Your task to perform on an android device: open app "Skype" (install if not already installed) and enter user name: "rumor@gmail.com" and password: "kinsman" Image 0: 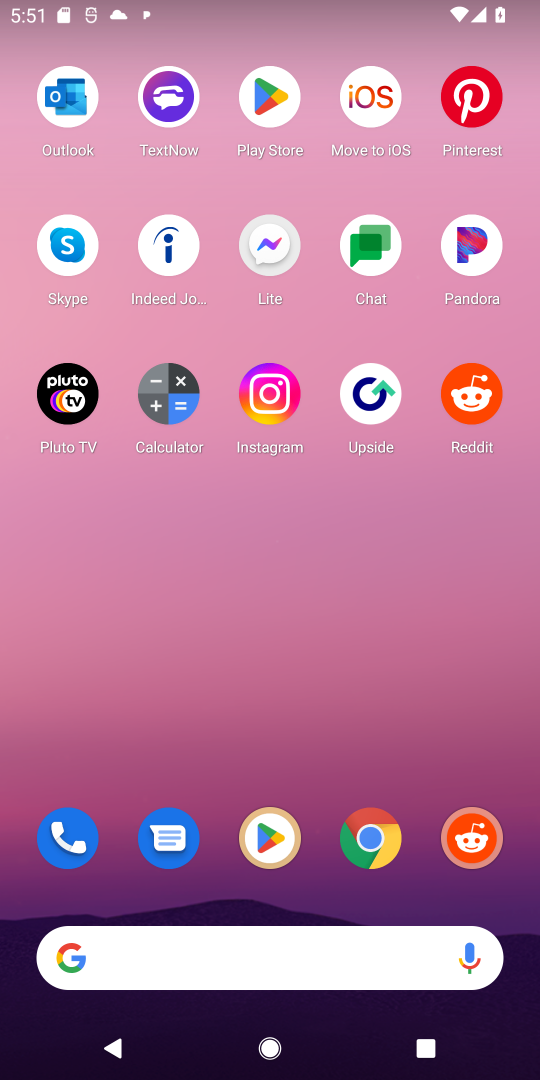
Step 0: click (264, 834)
Your task to perform on an android device: open app "Skype" (install if not already installed) and enter user name: "rumor@gmail.com" and password: "kinsman" Image 1: 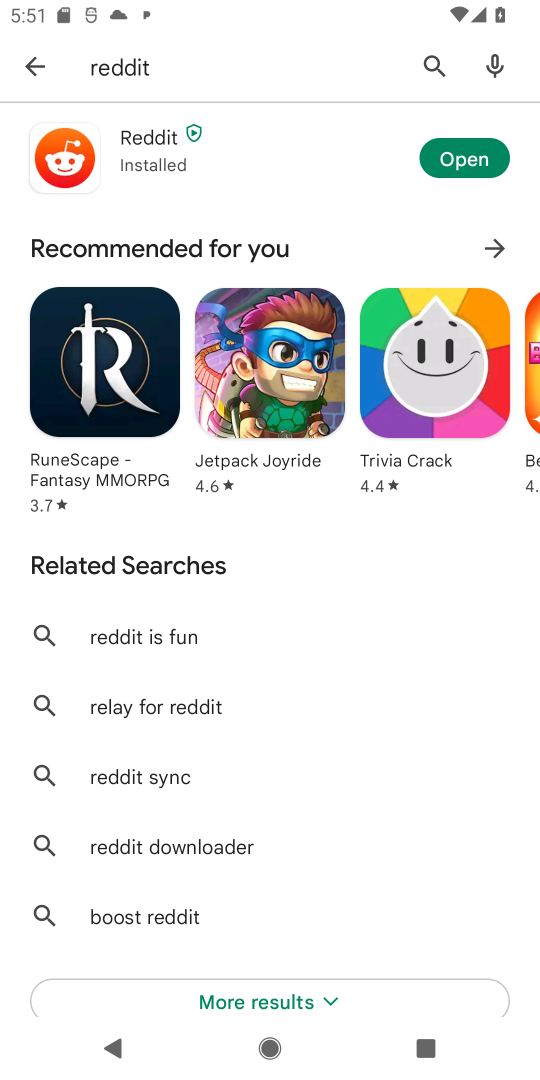
Step 1: click (438, 58)
Your task to perform on an android device: open app "Skype" (install if not already installed) and enter user name: "rumor@gmail.com" and password: "kinsman" Image 2: 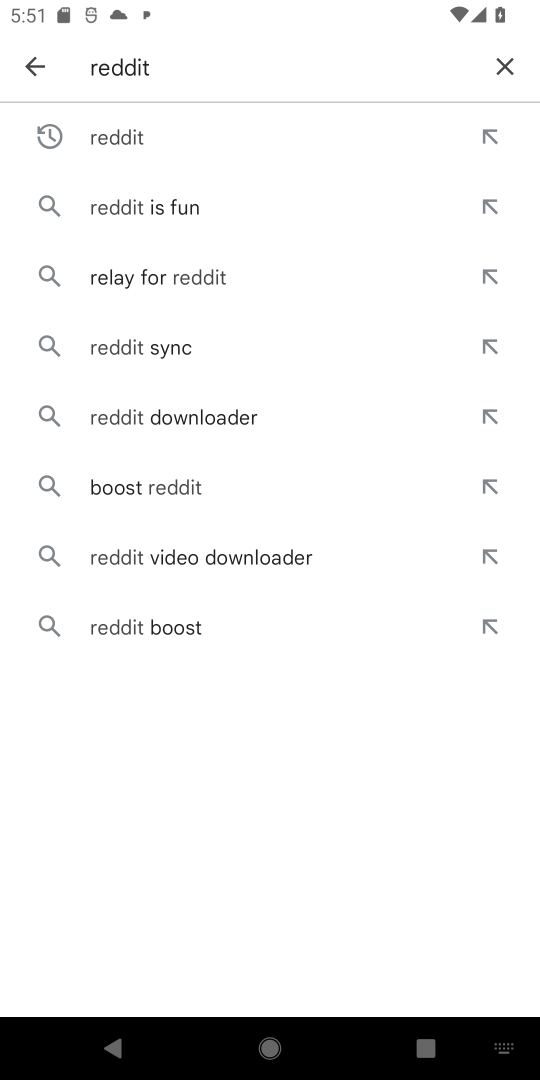
Step 2: click (502, 63)
Your task to perform on an android device: open app "Skype" (install if not already installed) and enter user name: "rumor@gmail.com" and password: "kinsman" Image 3: 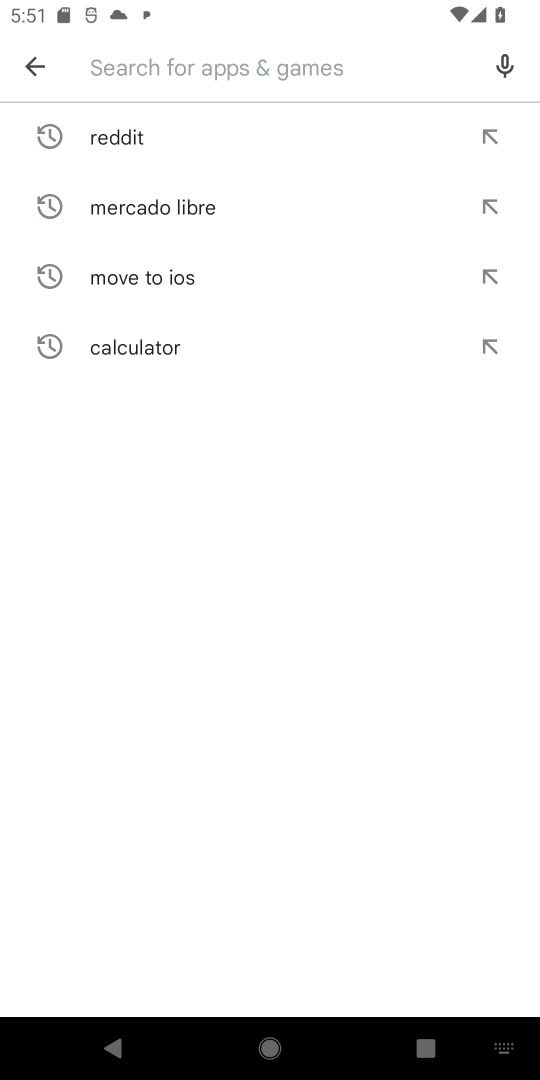
Step 3: type "Skype"
Your task to perform on an android device: open app "Skype" (install if not already installed) and enter user name: "rumor@gmail.com" and password: "kinsman" Image 4: 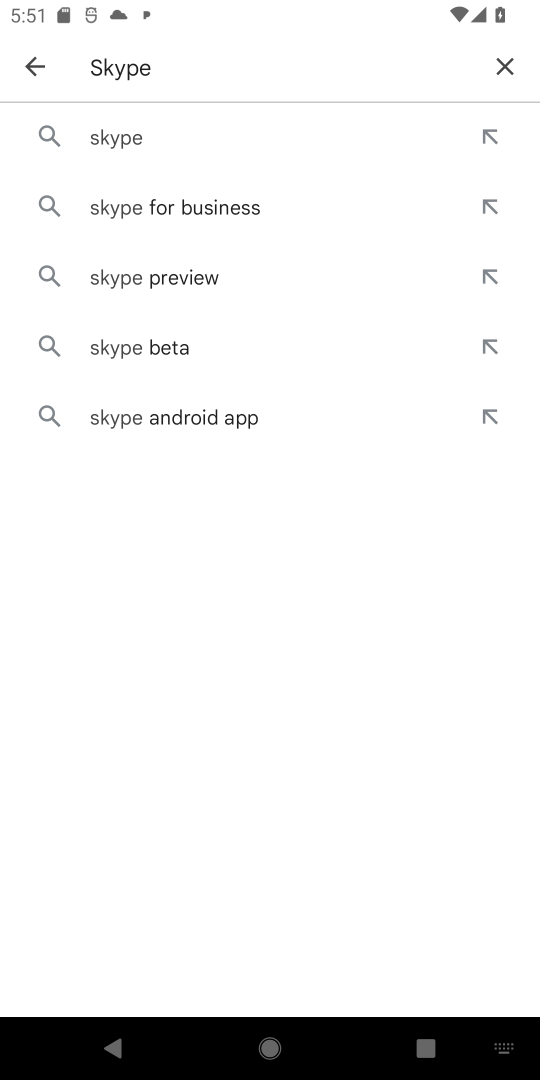
Step 4: click (132, 130)
Your task to perform on an android device: open app "Skype" (install if not already installed) and enter user name: "rumor@gmail.com" and password: "kinsman" Image 5: 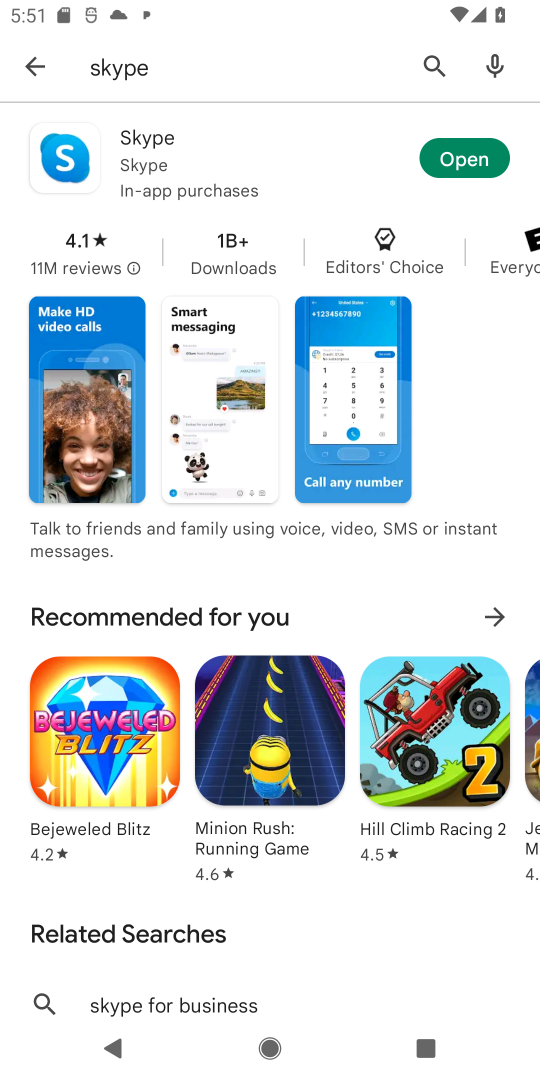
Step 5: click (472, 157)
Your task to perform on an android device: open app "Skype" (install if not already installed) and enter user name: "rumor@gmail.com" and password: "kinsman" Image 6: 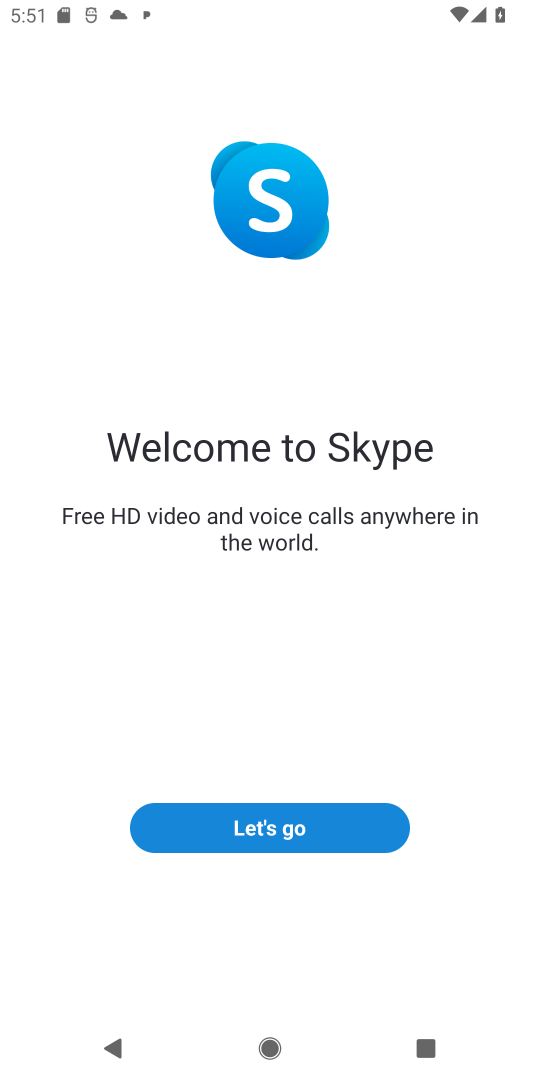
Step 6: click (279, 825)
Your task to perform on an android device: open app "Skype" (install if not already installed) and enter user name: "rumor@gmail.com" and password: "kinsman" Image 7: 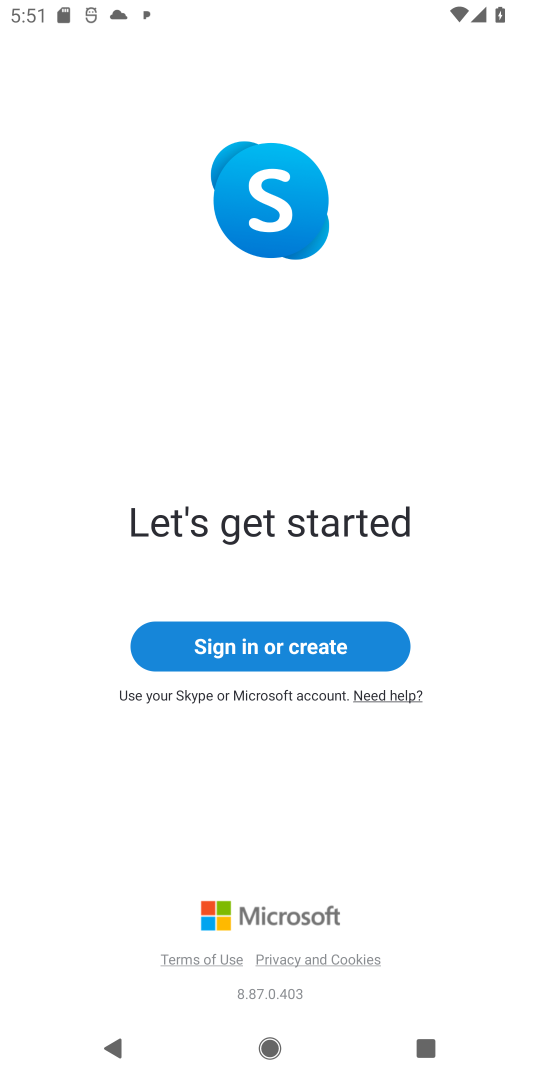
Step 7: click (293, 650)
Your task to perform on an android device: open app "Skype" (install if not already installed) and enter user name: "rumor@gmail.com" and password: "kinsman" Image 8: 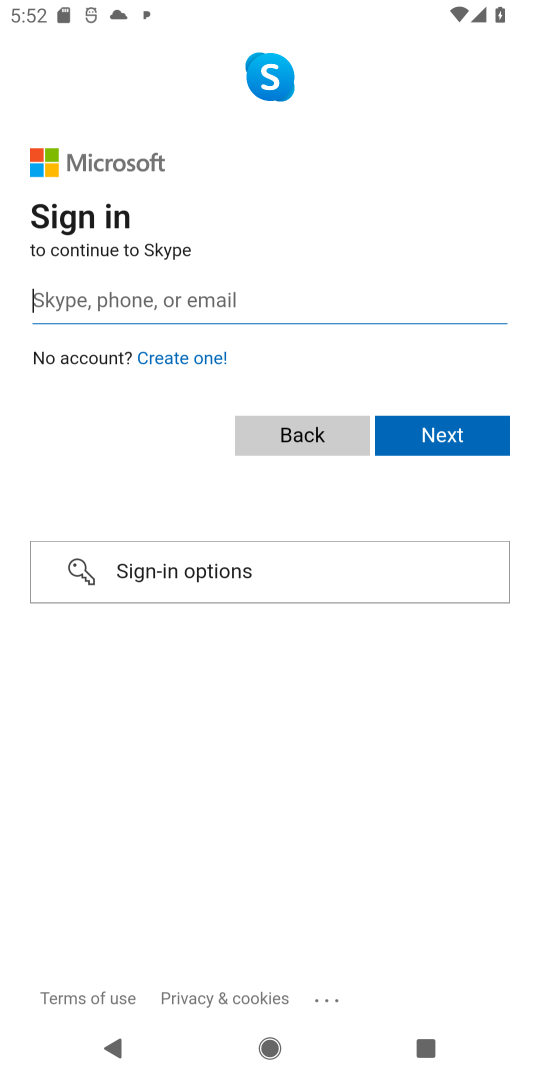
Step 8: type "rumor@gmail.com"
Your task to perform on an android device: open app "Skype" (install if not already installed) and enter user name: "rumor@gmail.com" and password: "kinsman" Image 9: 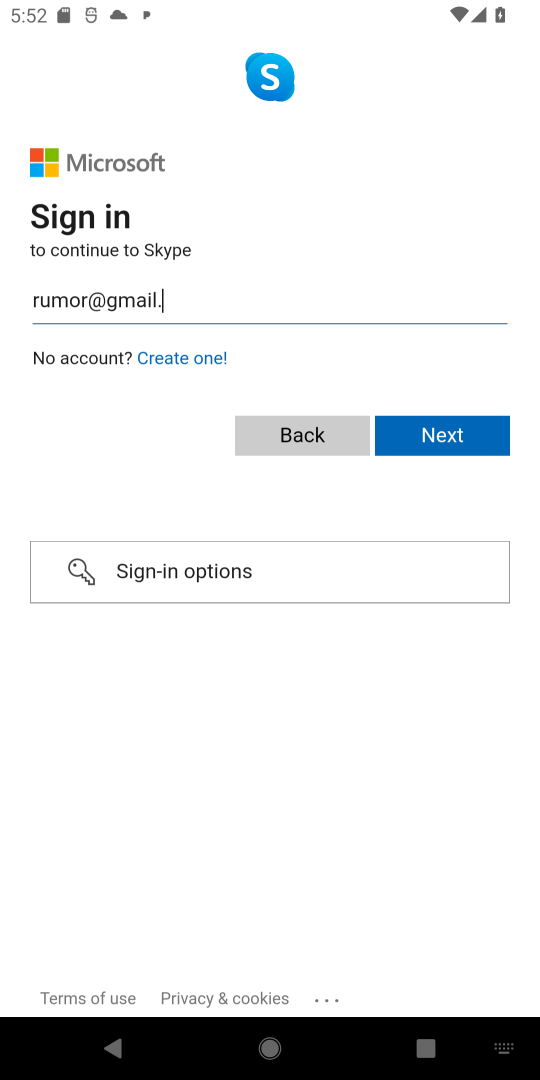
Step 9: type ""
Your task to perform on an android device: open app "Skype" (install if not already installed) and enter user name: "rumor@gmail.com" and password: "kinsman" Image 10: 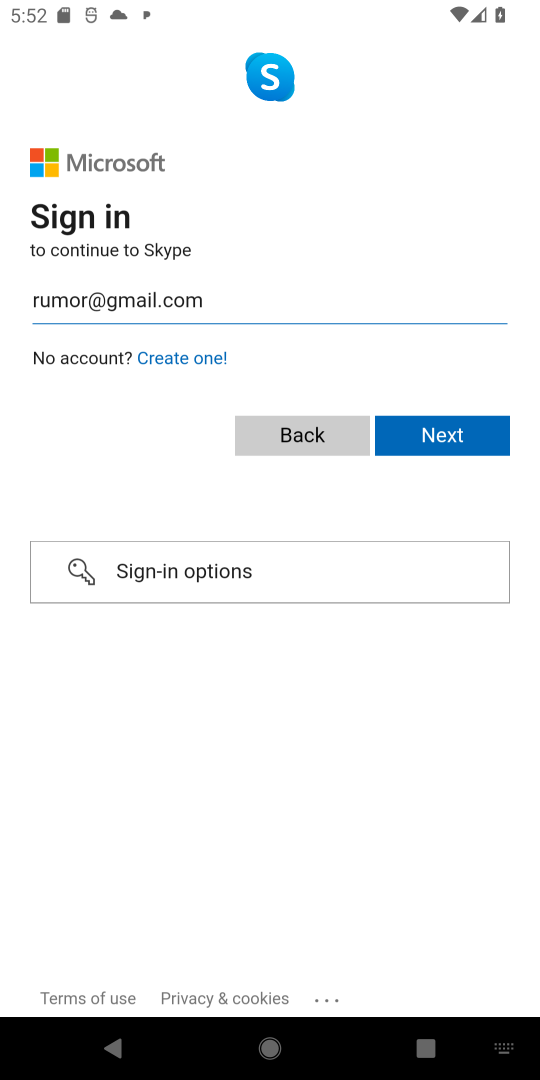
Step 10: click (438, 422)
Your task to perform on an android device: open app "Skype" (install if not already installed) and enter user name: "rumor@gmail.com" and password: "kinsman" Image 11: 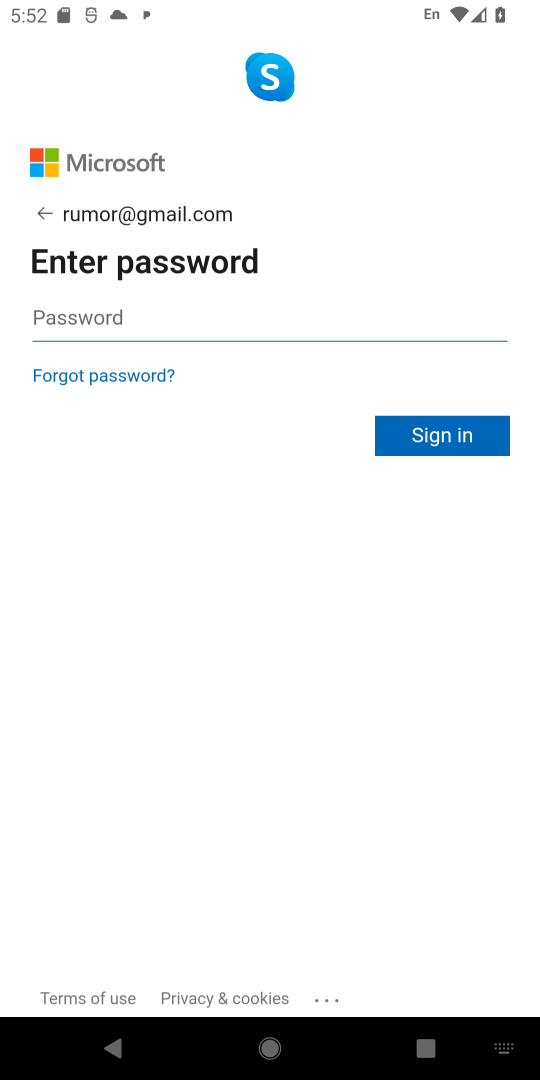
Step 11: type "kinsman"
Your task to perform on an android device: open app "Skype" (install if not already installed) and enter user name: "rumor@gmail.com" and password: "kinsman" Image 12: 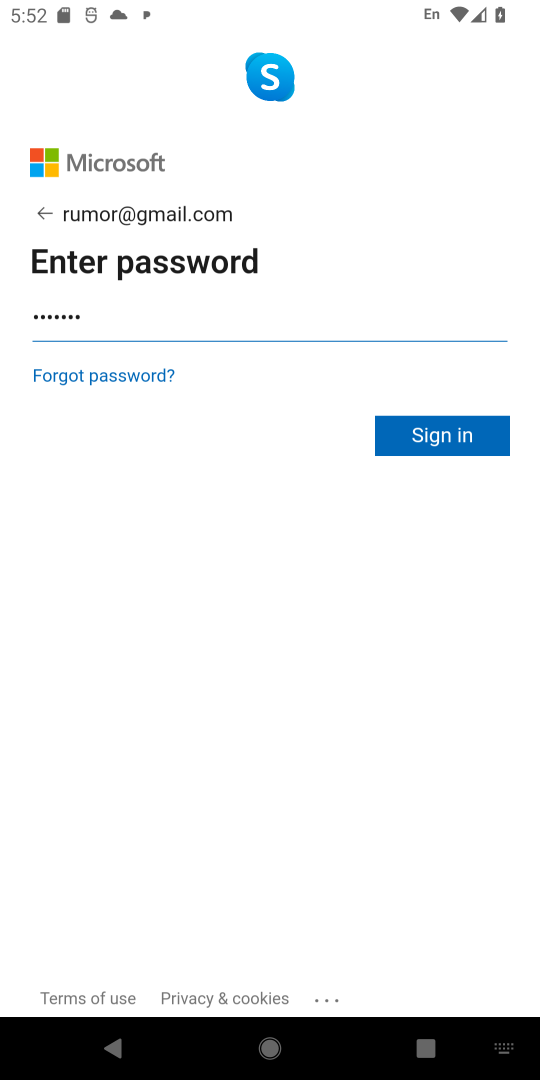
Step 12: task complete